Your task to perform on an android device: delete a single message in the gmail app Image 0: 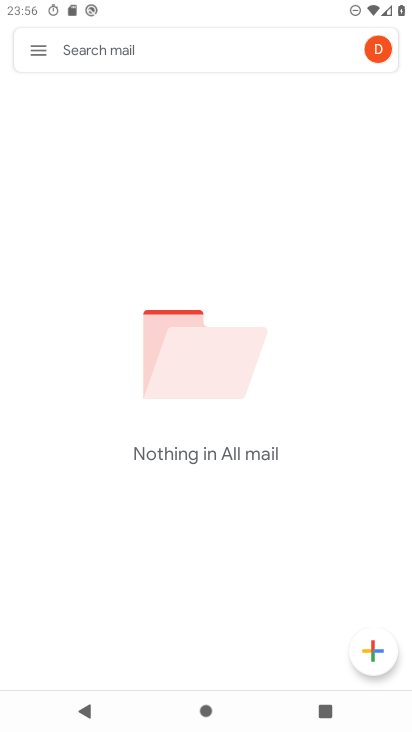
Step 0: task impossible